Your task to perform on an android device: set an alarm Image 0: 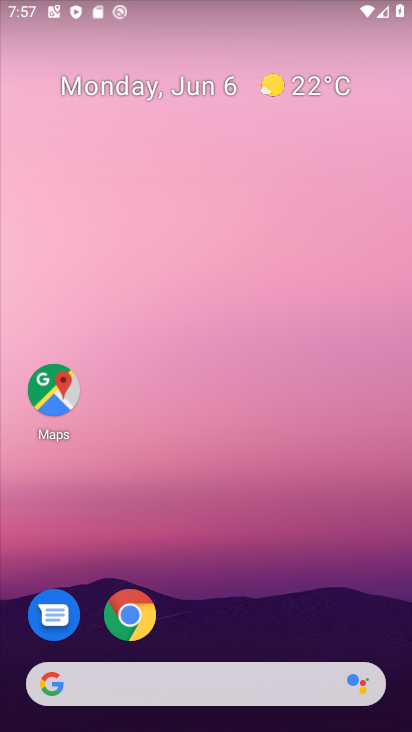
Step 0: drag from (394, 706) to (367, 95)
Your task to perform on an android device: set an alarm Image 1: 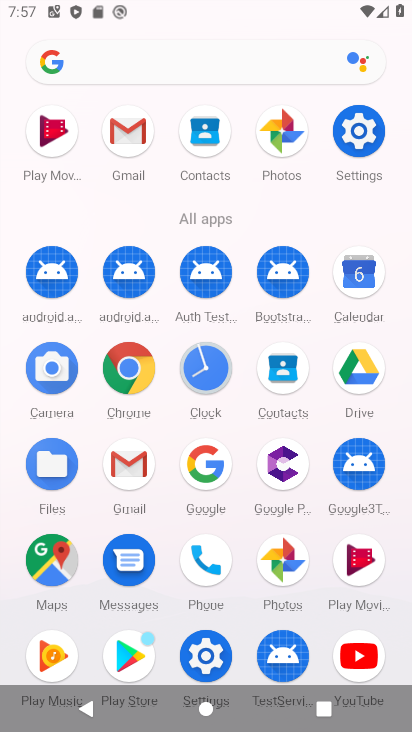
Step 1: click (215, 351)
Your task to perform on an android device: set an alarm Image 2: 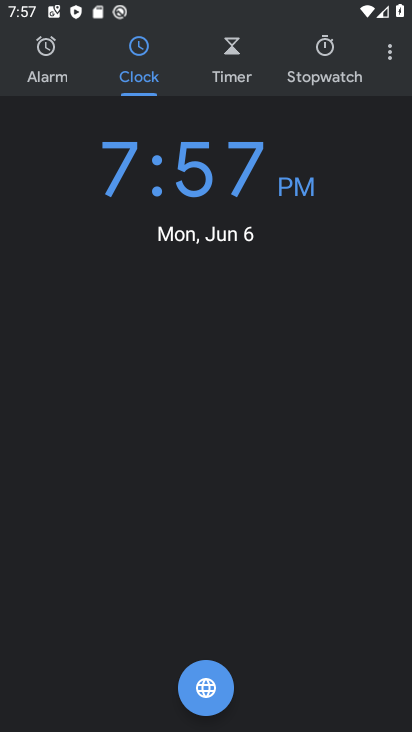
Step 2: click (48, 66)
Your task to perform on an android device: set an alarm Image 3: 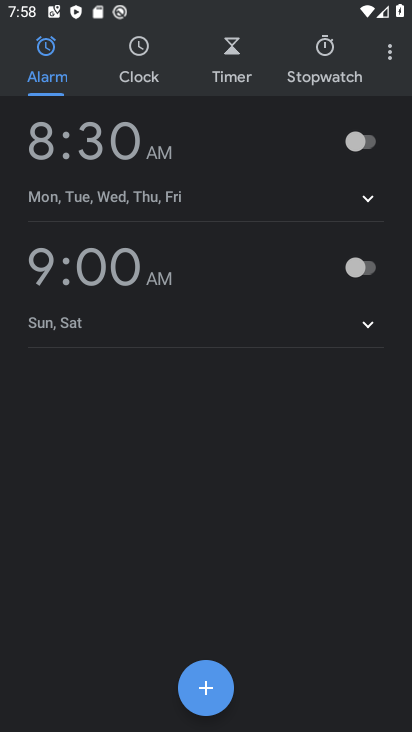
Step 3: click (379, 141)
Your task to perform on an android device: set an alarm Image 4: 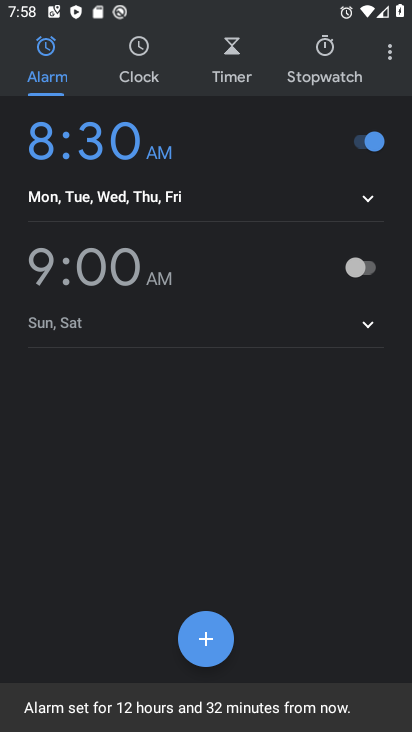
Step 4: task complete